Your task to perform on an android device: add a contact in the contacts app Image 0: 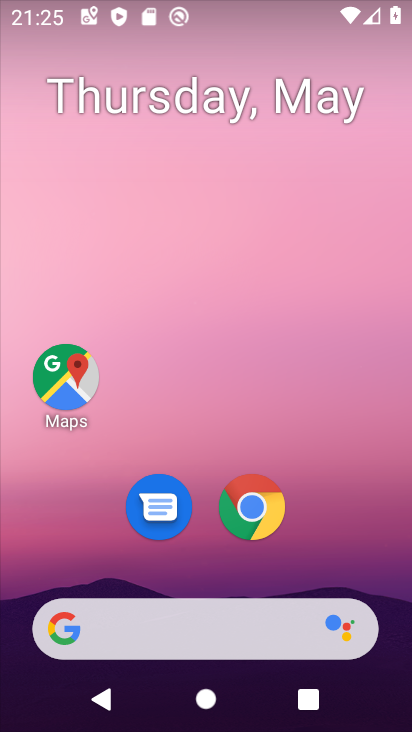
Step 0: drag from (264, 659) to (355, 133)
Your task to perform on an android device: add a contact in the contacts app Image 1: 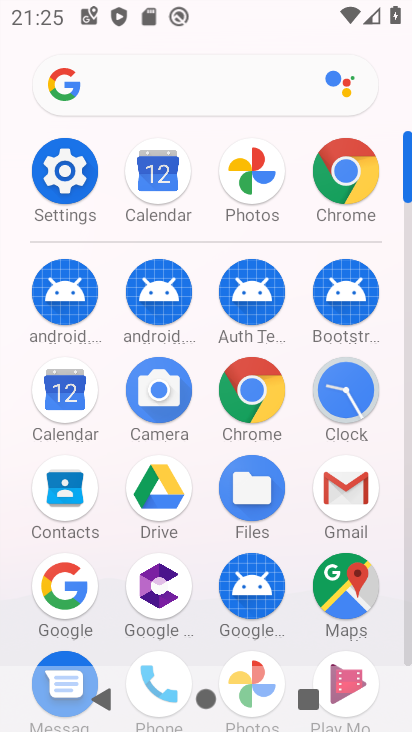
Step 1: click (163, 650)
Your task to perform on an android device: add a contact in the contacts app Image 2: 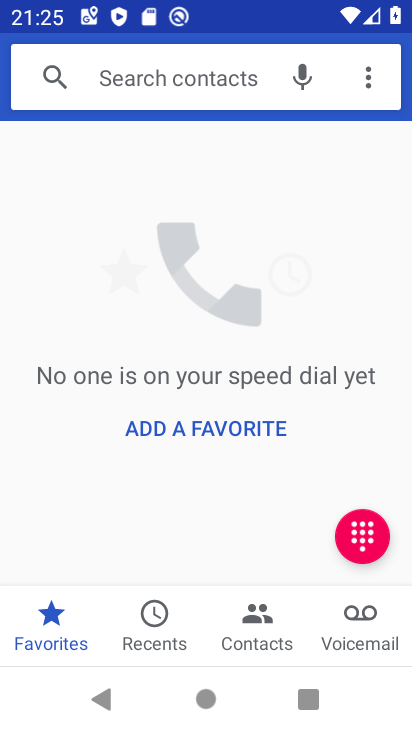
Step 2: click (250, 615)
Your task to perform on an android device: add a contact in the contacts app Image 3: 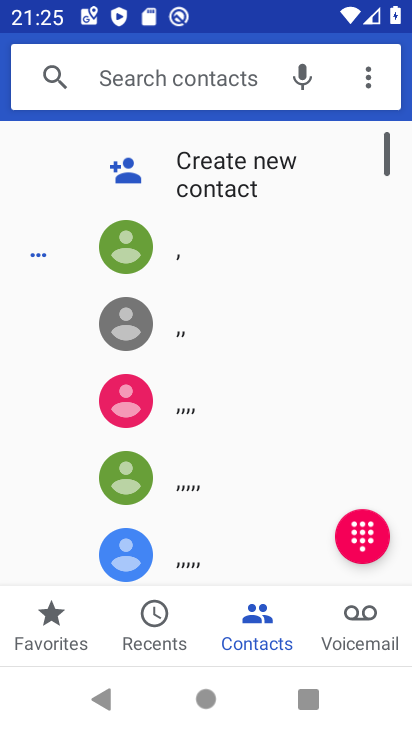
Step 3: click (210, 170)
Your task to perform on an android device: add a contact in the contacts app Image 4: 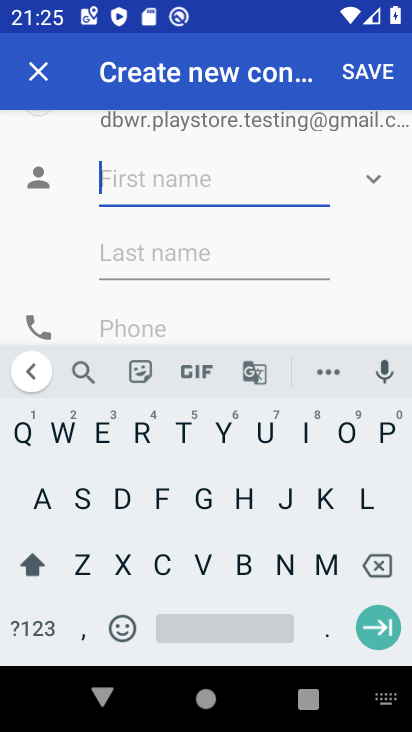
Step 4: click (152, 438)
Your task to perform on an android device: add a contact in the contacts app Image 5: 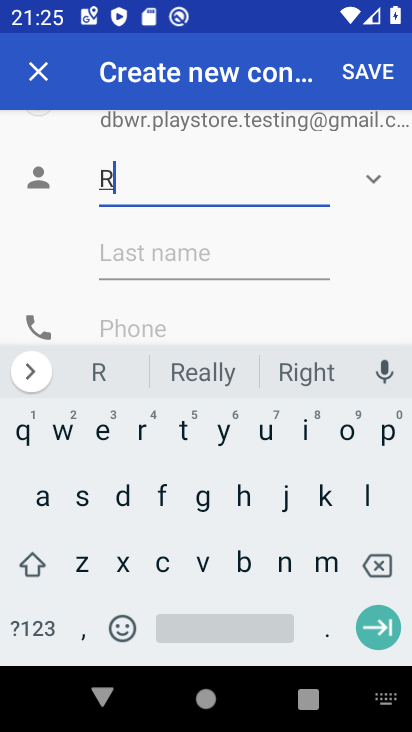
Step 5: click (205, 565)
Your task to perform on an android device: add a contact in the contacts app Image 6: 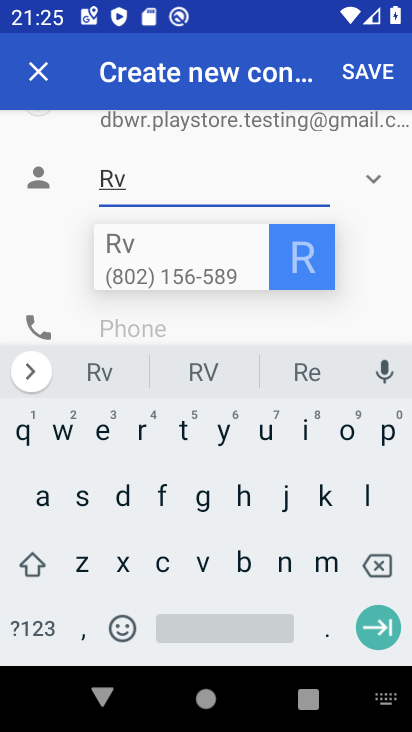
Step 6: click (242, 562)
Your task to perform on an android device: add a contact in the contacts app Image 7: 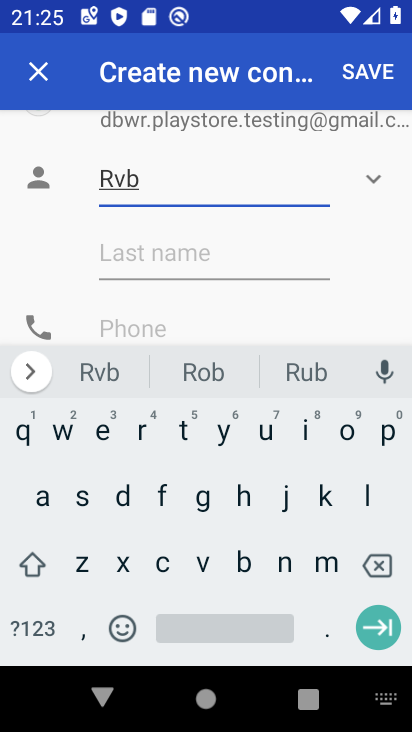
Step 7: click (150, 320)
Your task to perform on an android device: add a contact in the contacts app Image 8: 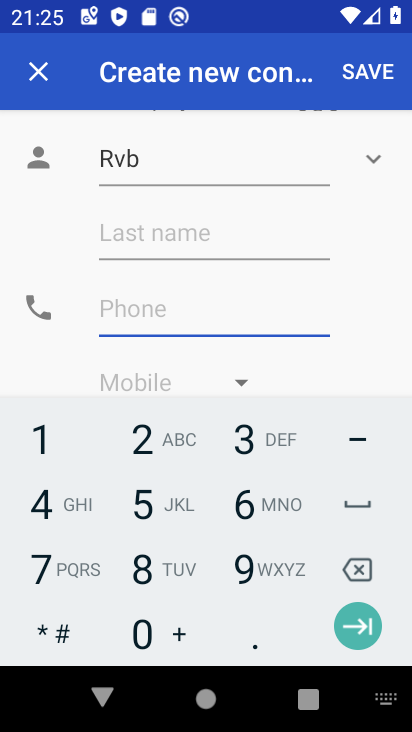
Step 8: click (145, 553)
Your task to perform on an android device: add a contact in the contacts app Image 9: 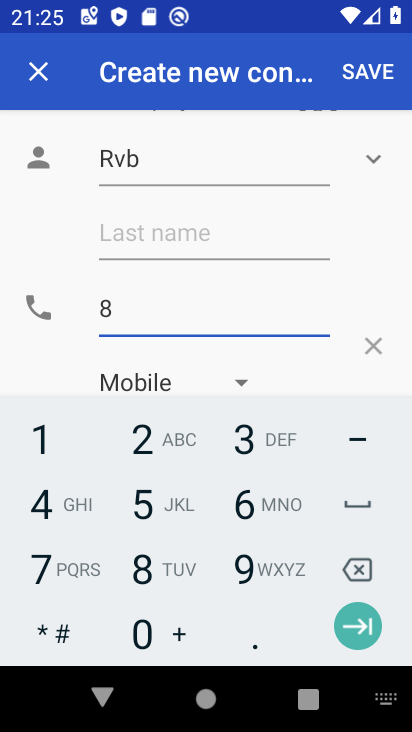
Step 9: click (71, 498)
Your task to perform on an android device: add a contact in the contacts app Image 10: 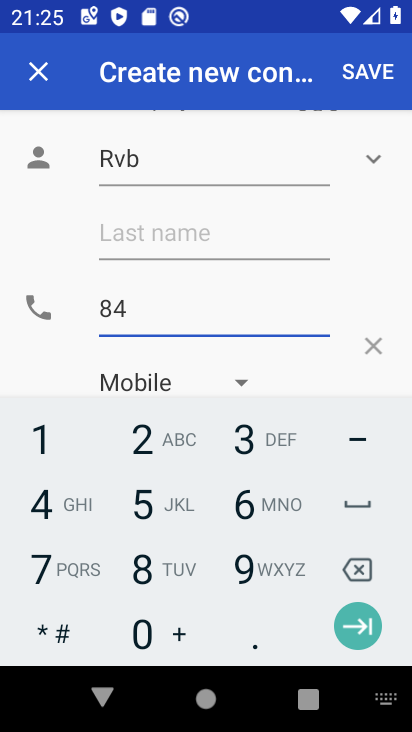
Step 10: click (53, 564)
Your task to perform on an android device: add a contact in the contacts app Image 11: 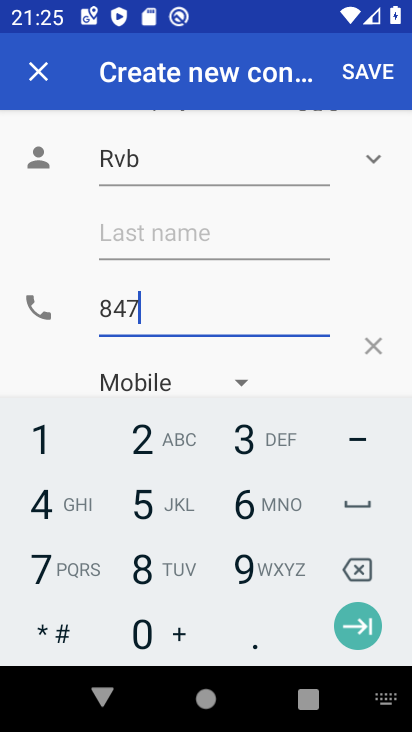
Step 11: click (132, 484)
Your task to perform on an android device: add a contact in the contacts app Image 12: 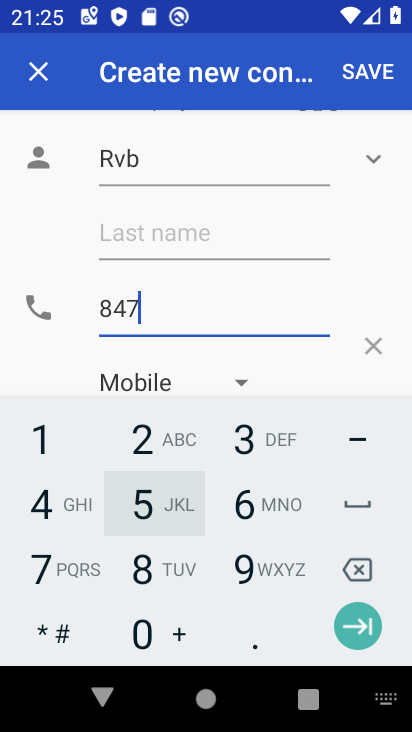
Step 12: click (132, 484)
Your task to perform on an android device: add a contact in the contacts app Image 13: 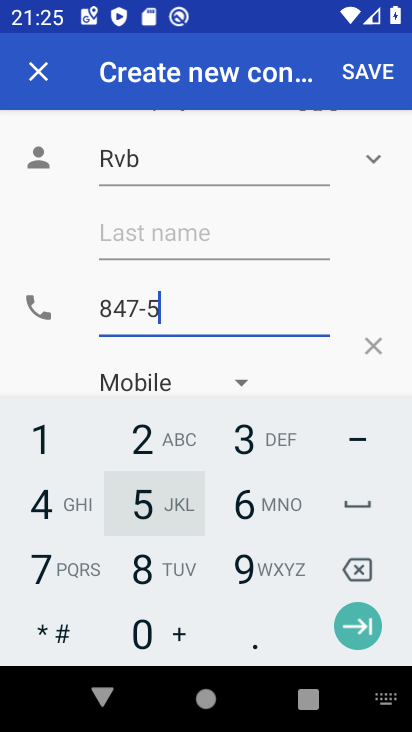
Step 13: click (132, 484)
Your task to perform on an android device: add a contact in the contacts app Image 14: 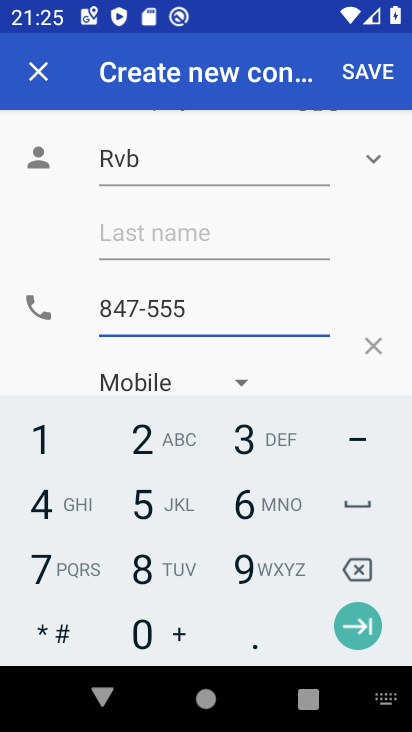
Step 14: click (141, 447)
Your task to perform on an android device: add a contact in the contacts app Image 15: 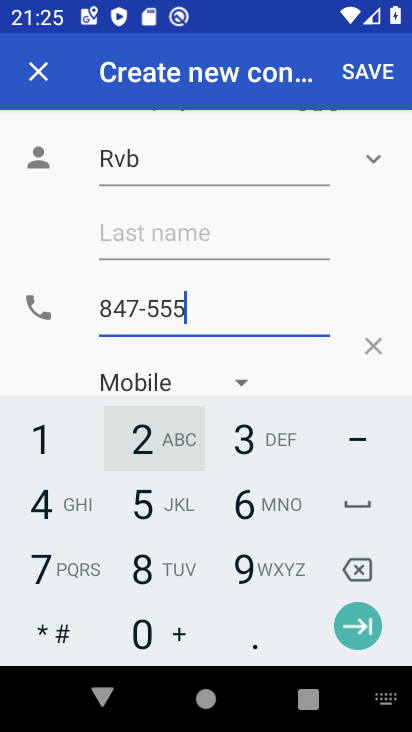
Step 15: click (141, 447)
Your task to perform on an android device: add a contact in the contacts app Image 16: 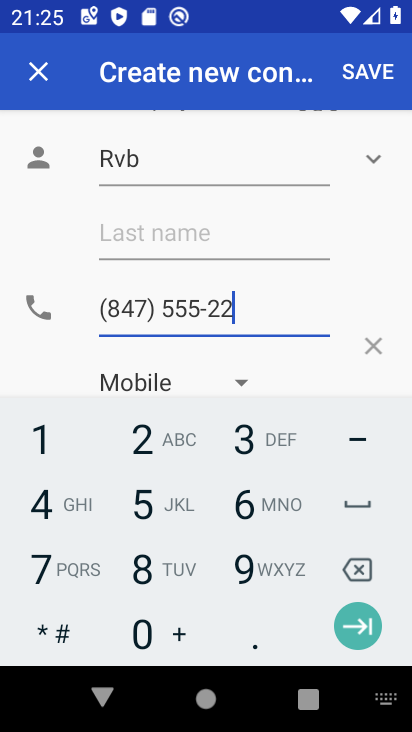
Step 16: click (141, 447)
Your task to perform on an android device: add a contact in the contacts app Image 17: 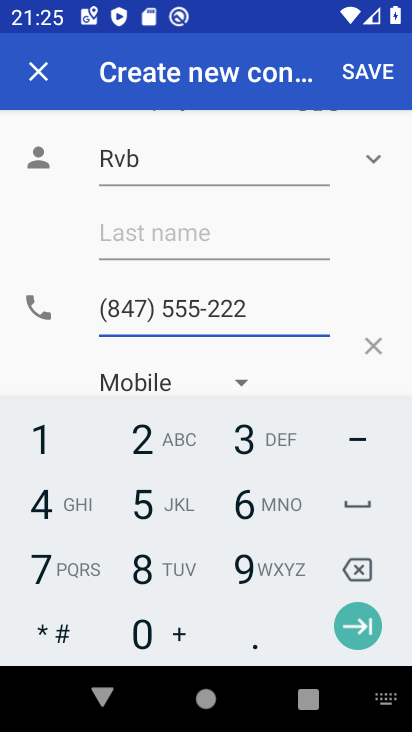
Step 17: click (47, 459)
Your task to perform on an android device: add a contact in the contacts app Image 18: 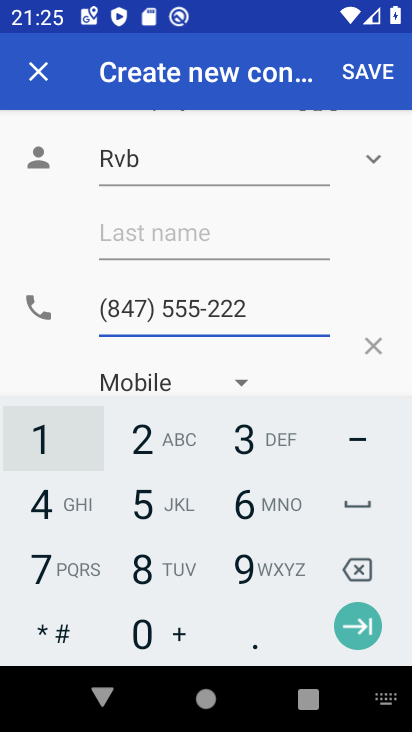
Step 18: click (47, 459)
Your task to perform on an android device: add a contact in the contacts app Image 19: 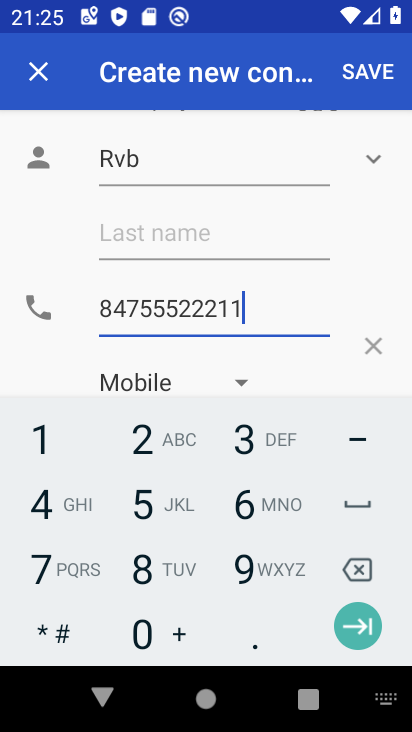
Step 19: click (358, 78)
Your task to perform on an android device: add a contact in the contacts app Image 20: 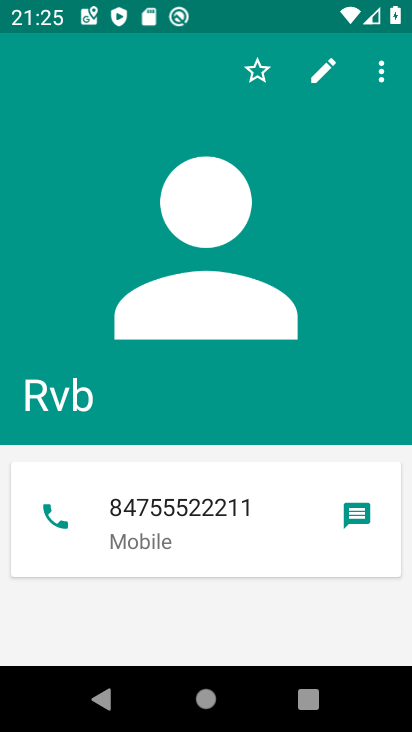
Step 20: task complete